Your task to perform on an android device: open device folders in google photos Image 0: 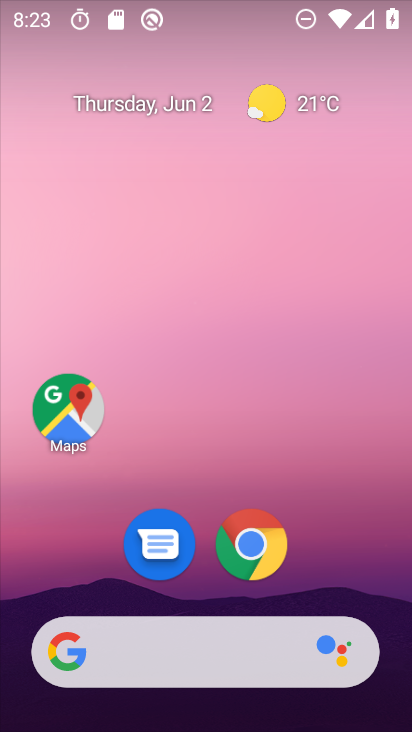
Step 0: drag from (377, 590) to (365, 78)
Your task to perform on an android device: open device folders in google photos Image 1: 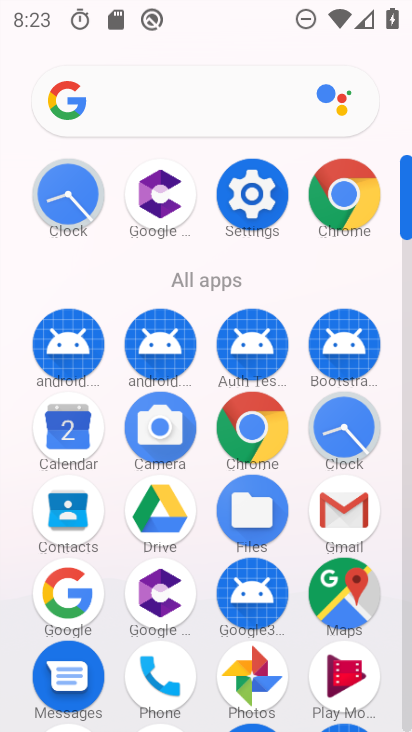
Step 1: click (410, 692)
Your task to perform on an android device: open device folders in google photos Image 2: 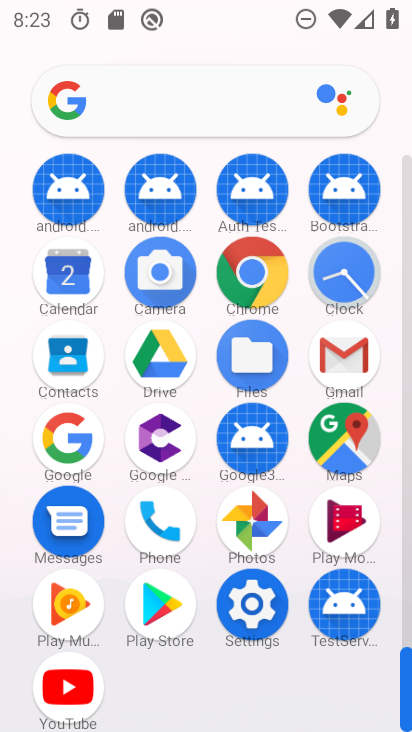
Step 2: click (257, 533)
Your task to perform on an android device: open device folders in google photos Image 3: 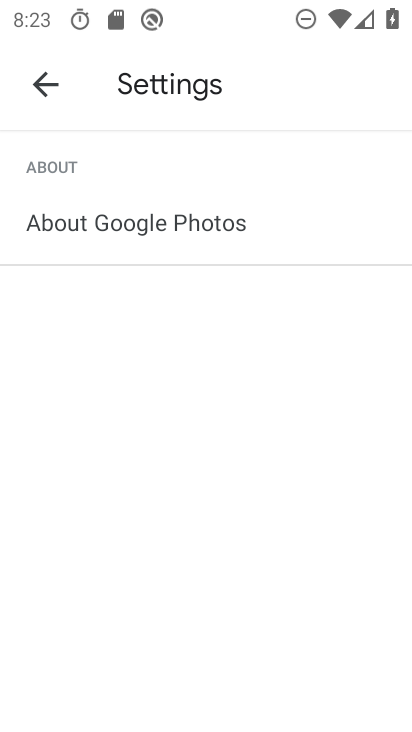
Step 3: click (35, 96)
Your task to perform on an android device: open device folders in google photos Image 4: 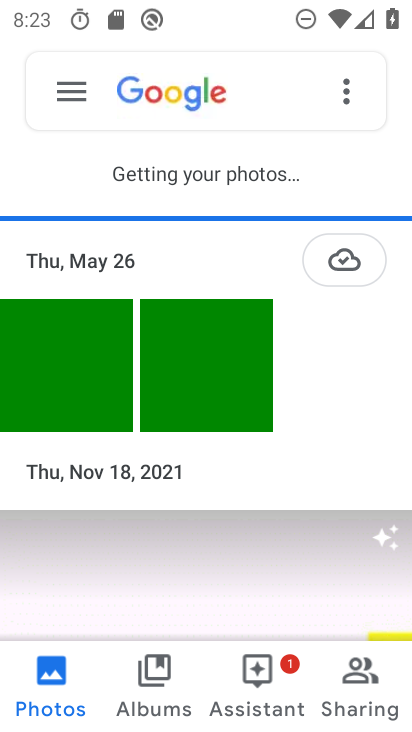
Step 4: click (69, 104)
Your task to perform on an android device: open device folders in google photos Image 5: 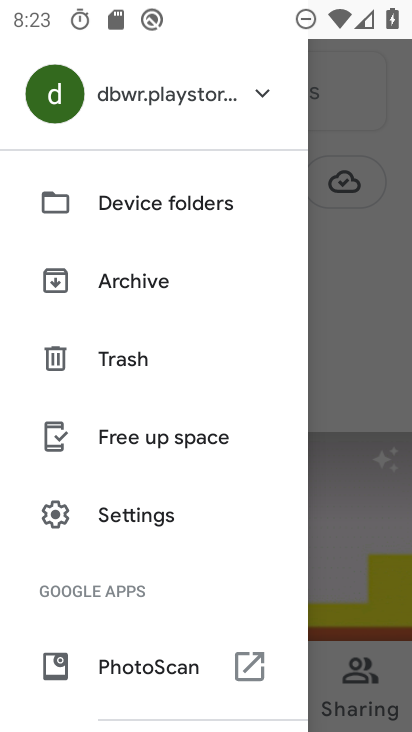
Step 5: click (110, 203)
Your task to perform on an android device: open device folders in google photos Image 6: 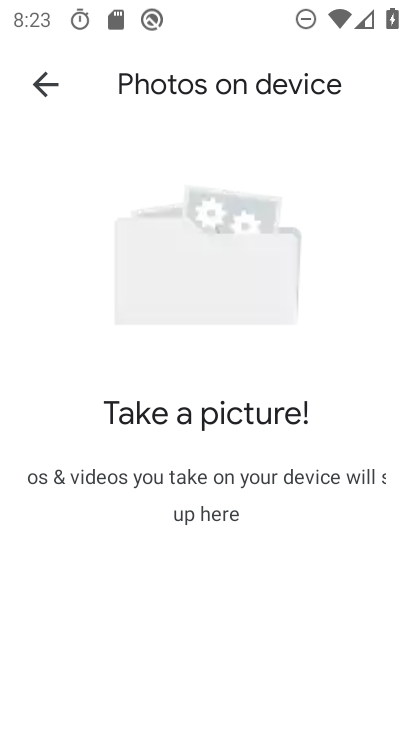
Step 6: task complete